Your task to perform on an android device: show emergency info Image 0: 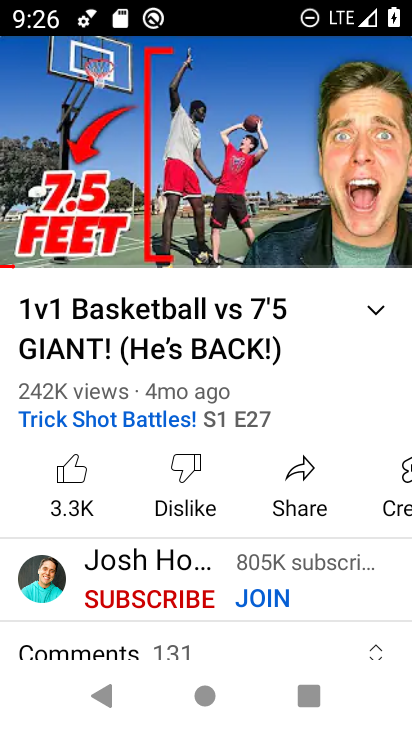
Step 0: press home button
Your task to perform on an android device: show emergency info Image 1: 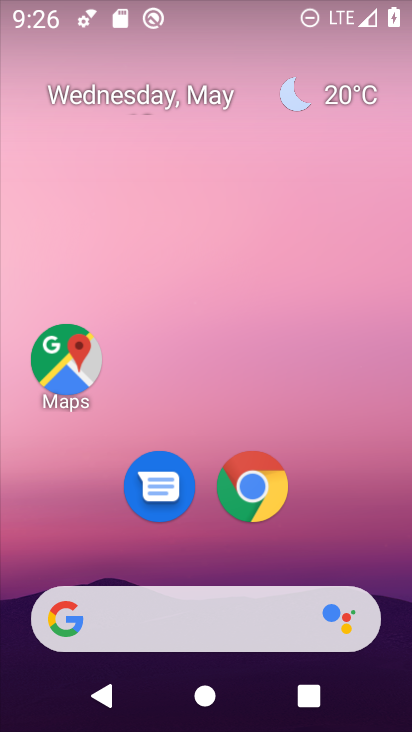
Step 1: drag from (398, 604) to (327, 176)
Your task to perform on an android device: show emergency info Image 2: 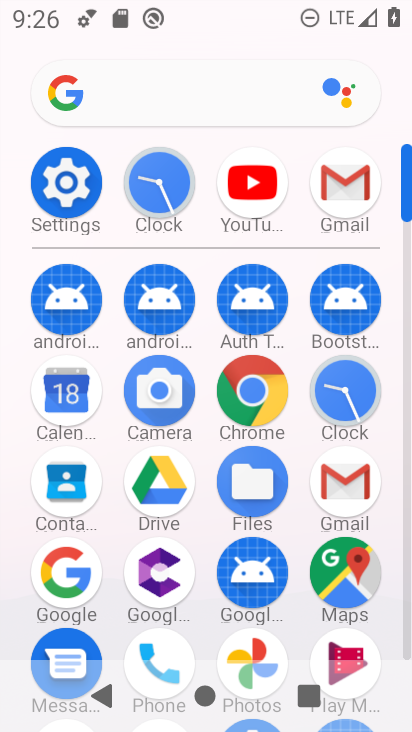
Step 2: click (406, 651)
Your task to perform on an android device: show emergency info Image 3: 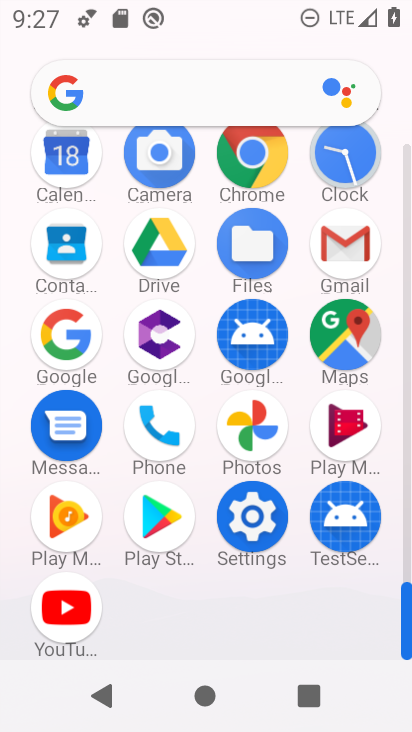
Step 3: click (250, 516)
Your task to perform on an android device: show emergency info Image 4: 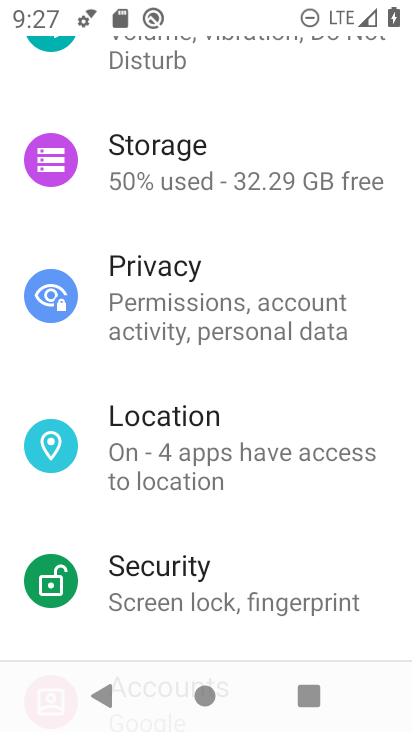
Step 4: drag from (331, 600) to (252, 92)
Your task to perform on an android device: show emergency info Image 5: 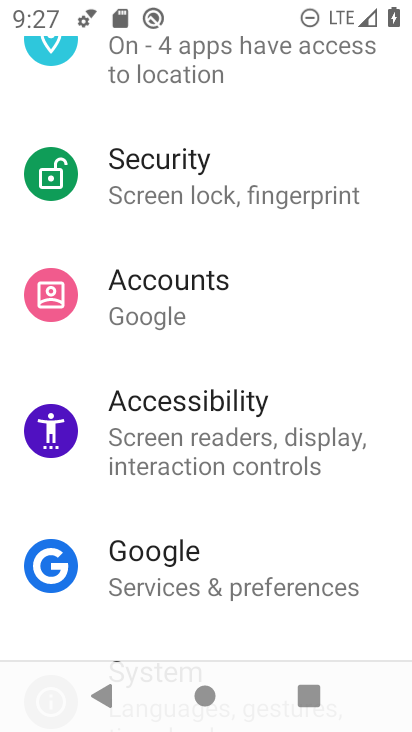
Step 5: drag from (377, 613) to (322, 167)
Your task to perform on an android device: show emergency info Image 6: 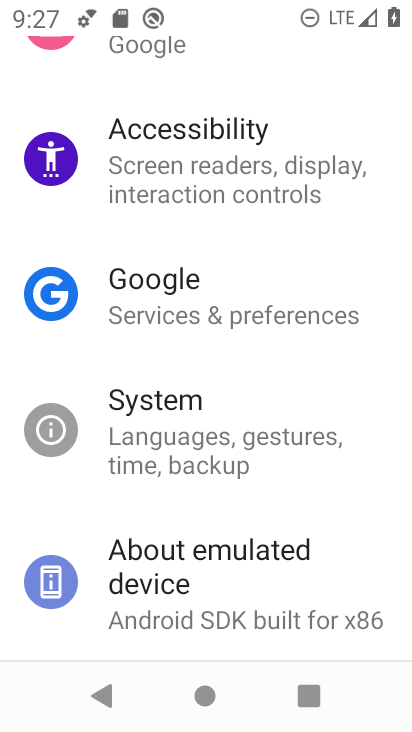
Step 6: click (205, 583)
Your task to perform on an android device: show emergency info Image 7: 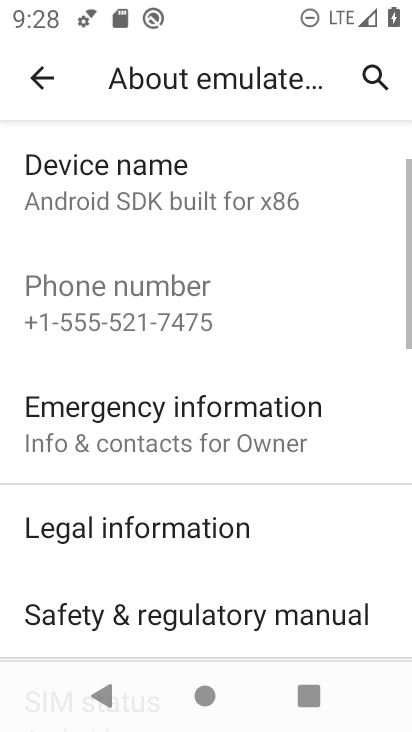
Step 7: click (272, 602)
Your task to perform on an android device: show emergency info Image 8: 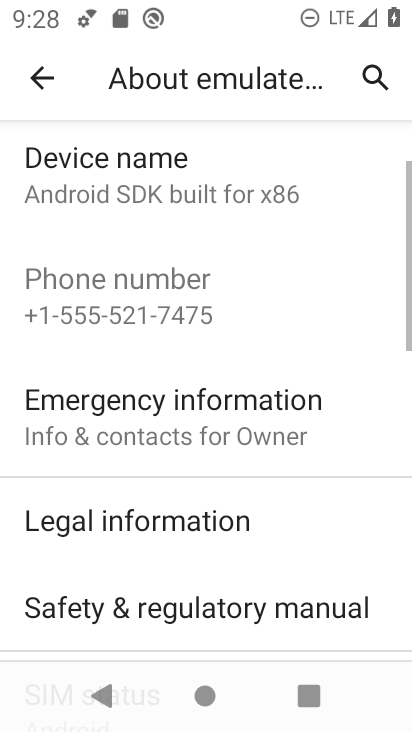
Step 8: click (131, 414)
Your task to perform on an android device: show emergency info Image 9: 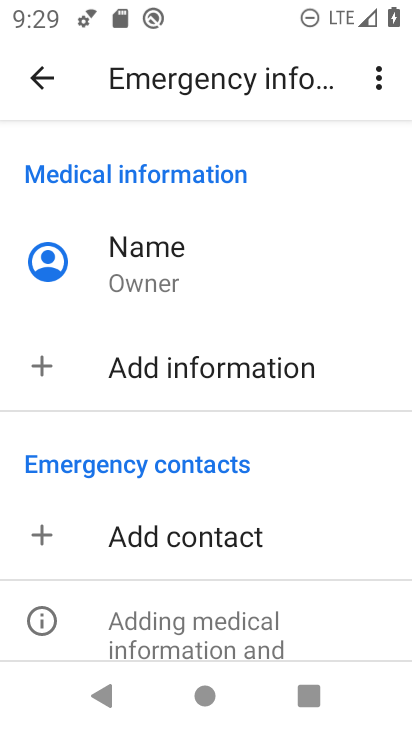
Step 9: task complete